Your task to perform on an android device: Open the calendar app, open the side menu, and click the "Day" option Image 0: 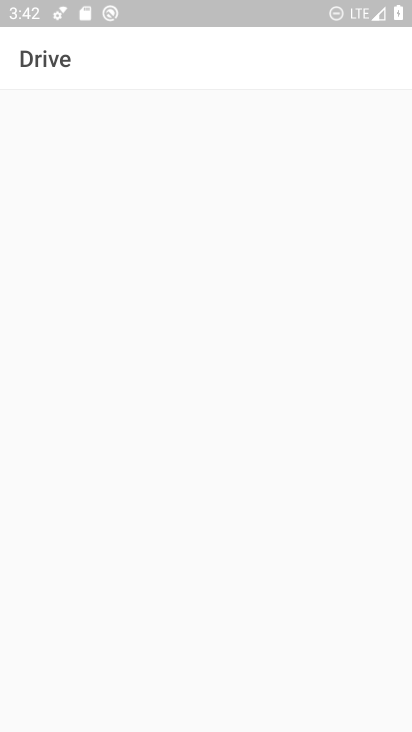
Step 0: press home button
Your task to perform on an android device: Open the calendar app, open the side menu, and click the "Day" option Image 1: 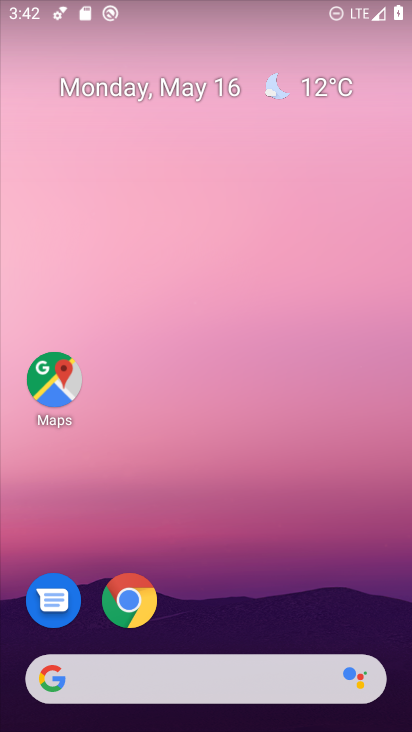
Step 1: drag from (316, 580) to (366, 69)
Your task to perform on an android device: Open the calendar app, open the side menu, and click the "Day" option Image 2: 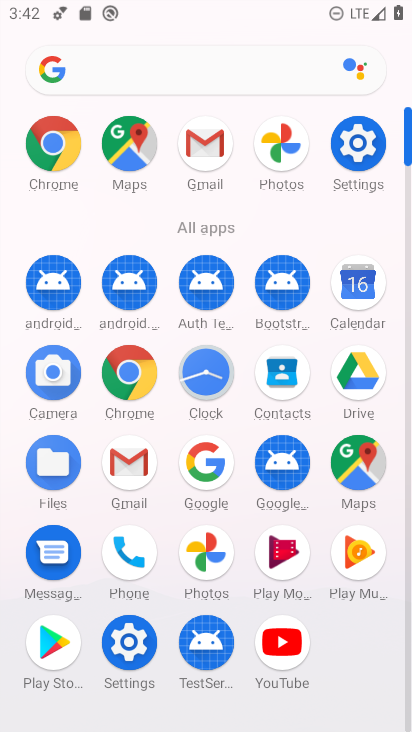
Step 2: click (363, 293)
Your task to perform on an android device: Open the calendar app, open the side menu, and click the "Day" option Image 3: 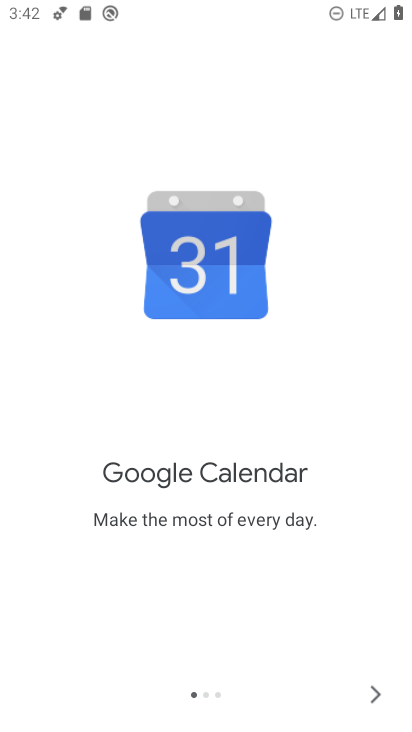
Step 3: click (378, 681)
Your task to perform on an android device: Open the calendar app, open the side menu, and click the "Day" option Image 4: 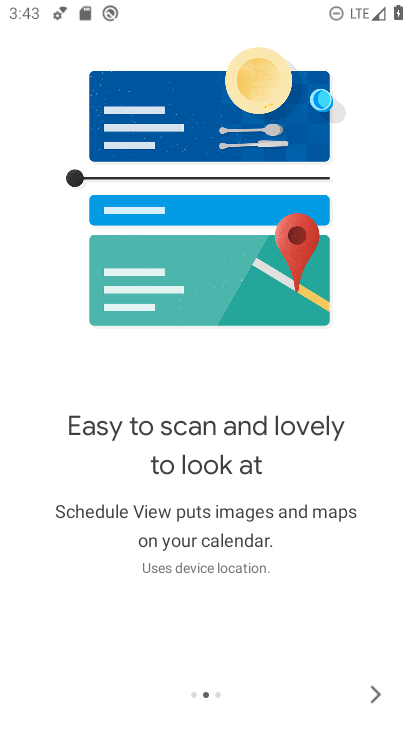
Step 4: click (378, 679)
Your task to perform on an android device: Open the calendar app, open the side menu, and click the "Day" option Image 5: 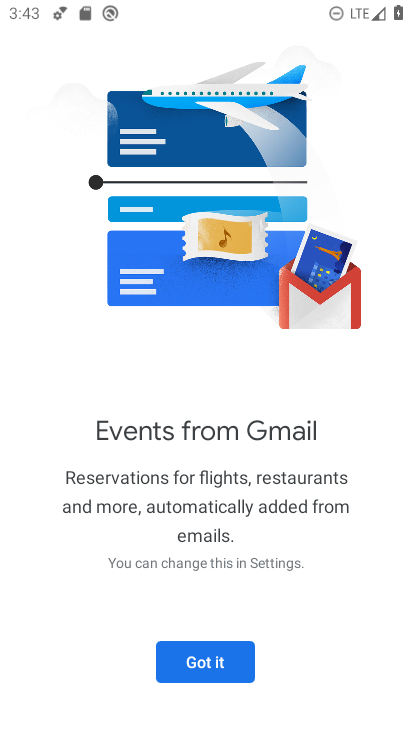
Step 5: click (218, 673)
Your task to perform on an android device: Open the calendar app, open the side menu, and click the "Day" option Image 6: 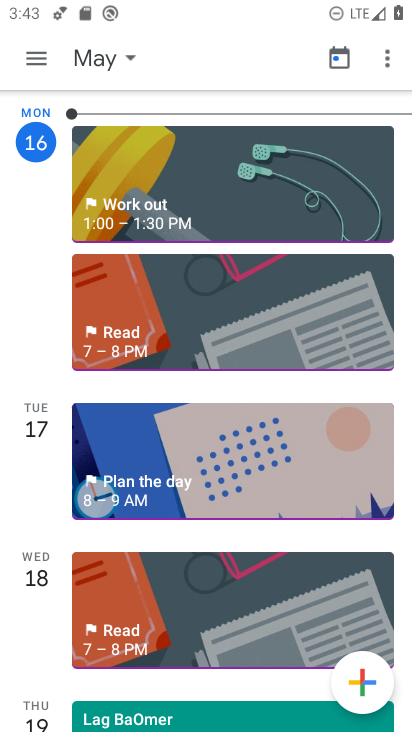
Step 6: click (39, 64)
Your task to perform on an android device: Open the calendar app, open the side menu, and click the "Day" option Image 7: 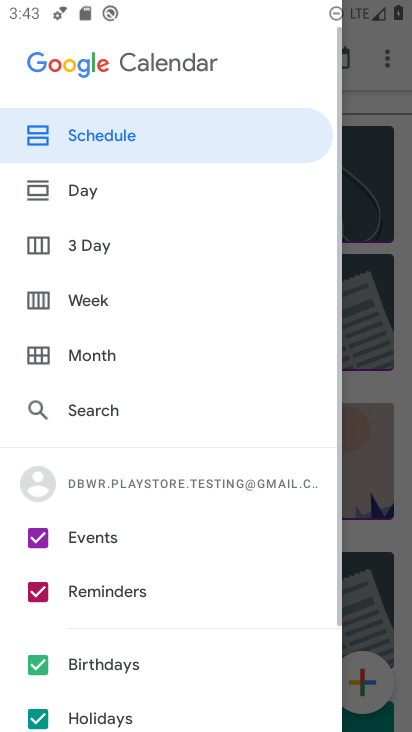
Step 7: click (102, 187)
Your task to perform on an android device: Open the calendar app, open the side menu, and click the "Day" option Image 8: 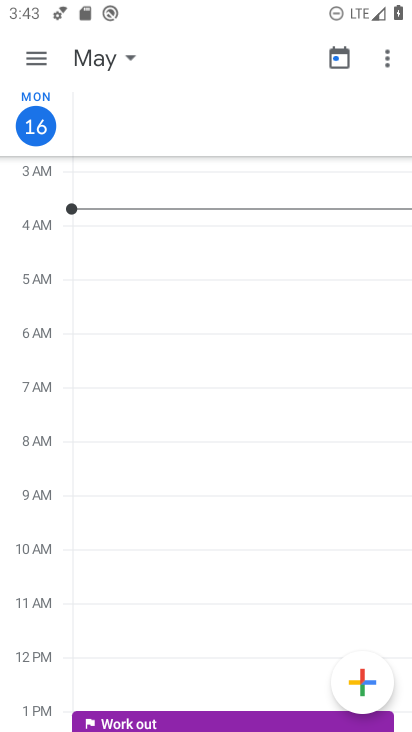
Step 8: task complete